Your task to perform on an android device: install app "Google Sheets" Image 0: 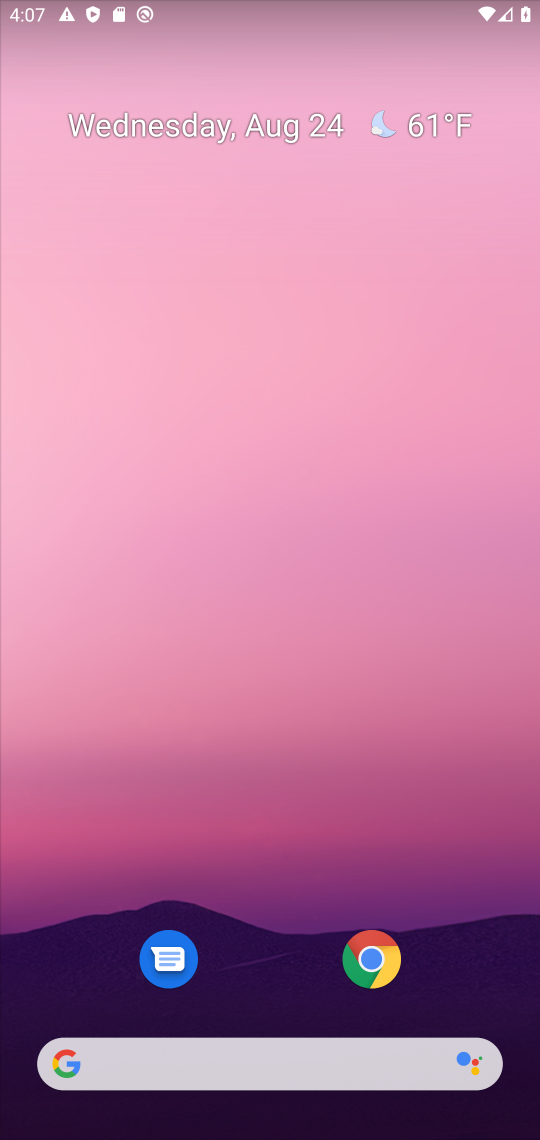
Step 0: task complete